Your task to perform on an android device: snooze an email in the gmail app Image 0: 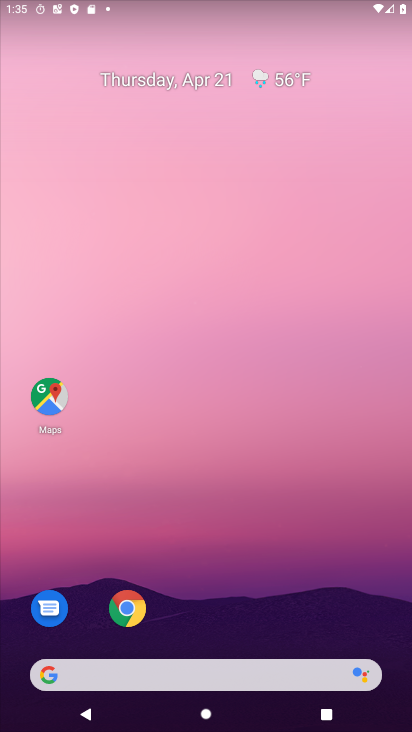
Step 0: drag from (287, 492) to (276, 35)
Your task to perform on an android device: snooze an email in the gmail app Image 1: 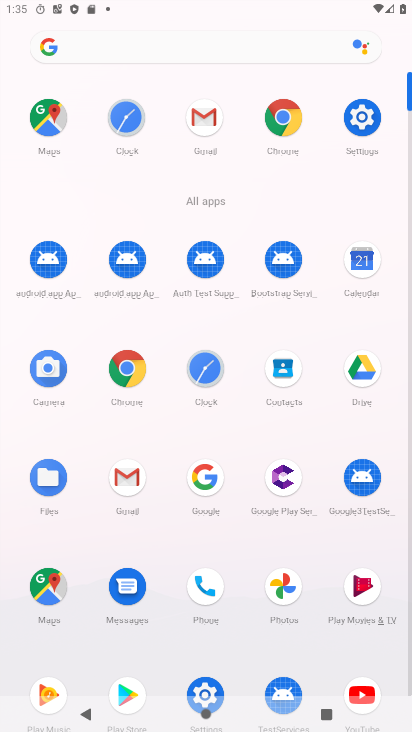
Step 1: click (194, 113)
Your task to perform on an android device: snooze an email in the gmail app Image 2: 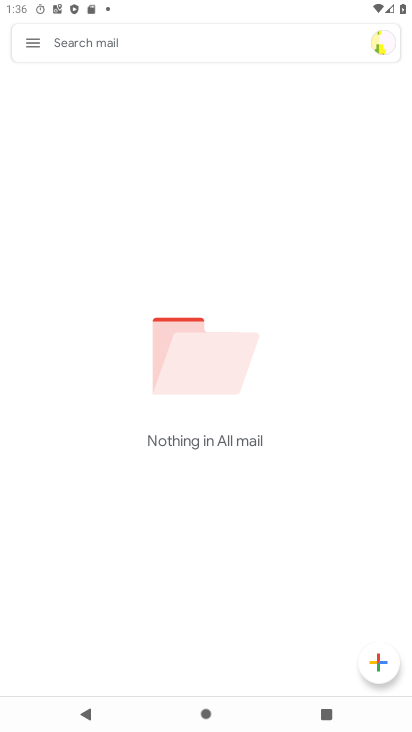
Step 2: click (30, 41)
Your task to perform on an android device: snooze an email in the gmail app Image 3: 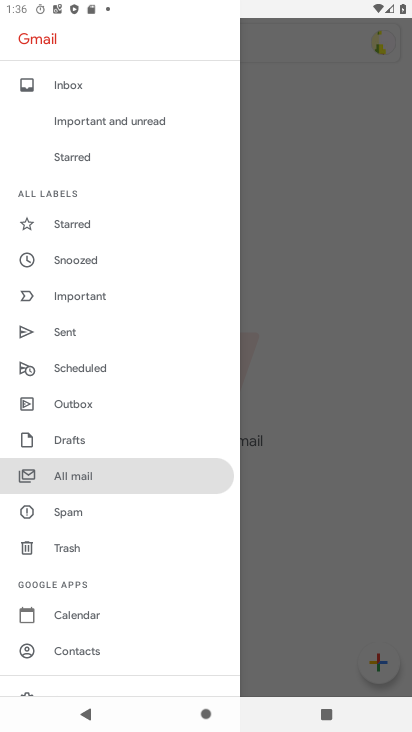
Step 3: click (76, 80)
Your task to perform on an android device: snooze an email in the gmail app Image 4: 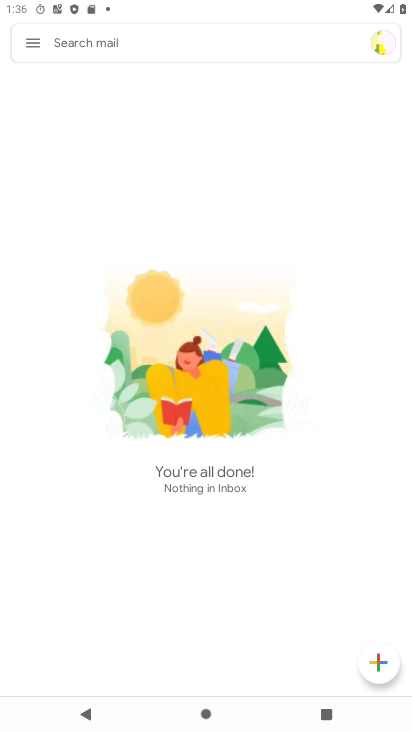
Step 4: task complete